Your task to perform on an android device: turn on translation in the chrome app Image 0: 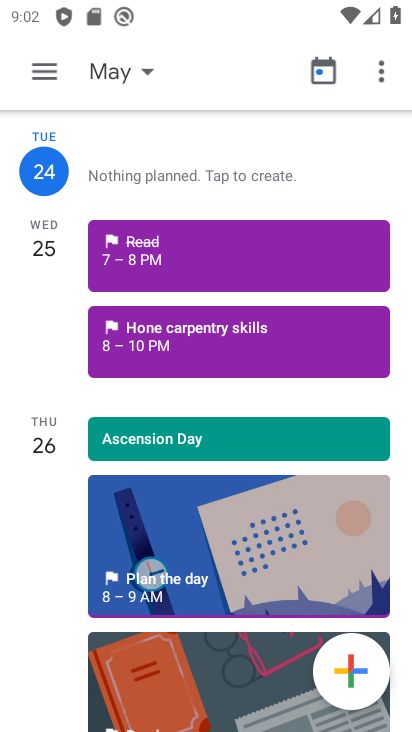
Step 0: press home button
Your task to perform on an android device: turn on translation in the chrome app Image 1: 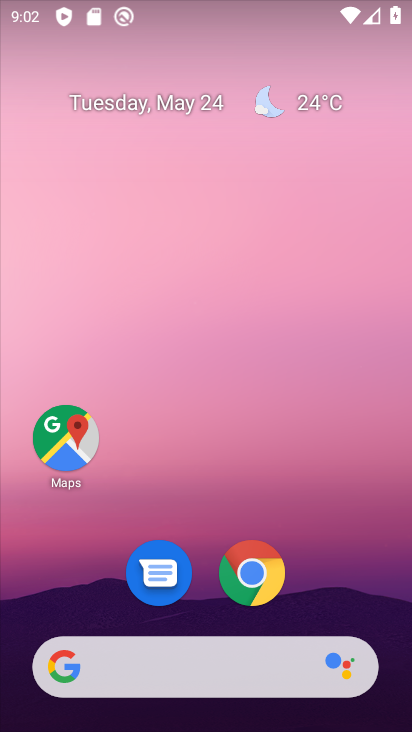
Step 1: click (247, 570)
Your task to perform on an android device: turn on translation in the chrome app Image 2: 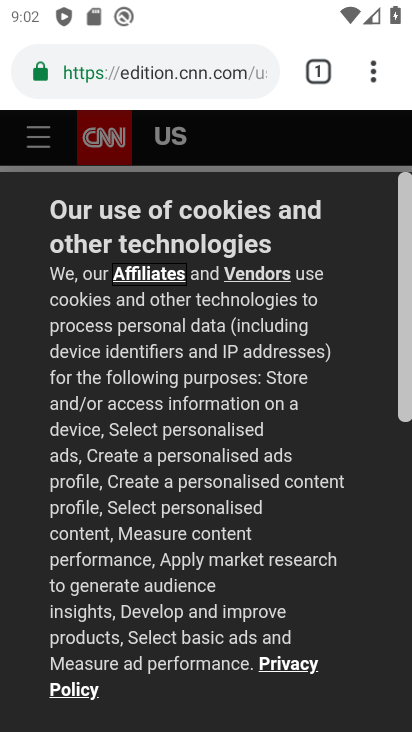
Step 2: click (372, 76)
Your task to perform on an android device: turn on translation in the chrome app Image 3: 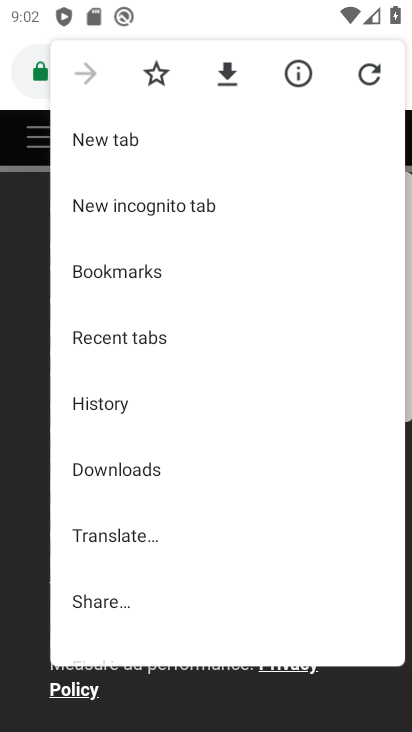
Step 3: drag from (223, 611) to (231, 195)
Your task to perform on an android device: turn on translation in the chrome app Image 4: 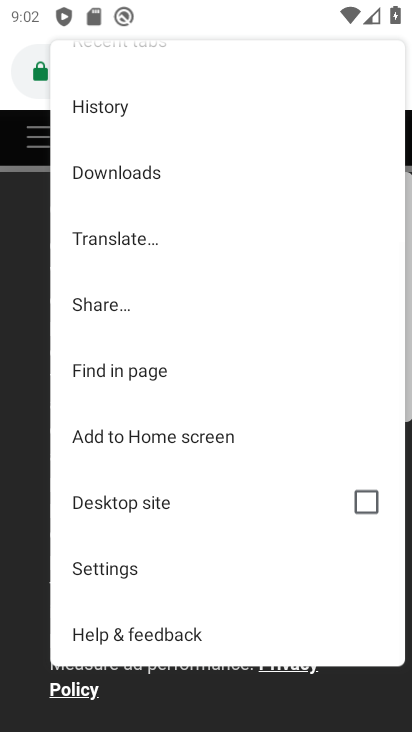
Step 4: click (122, 560)
Your task to perform on an android device: turn on translation in the chrome app Image 5: 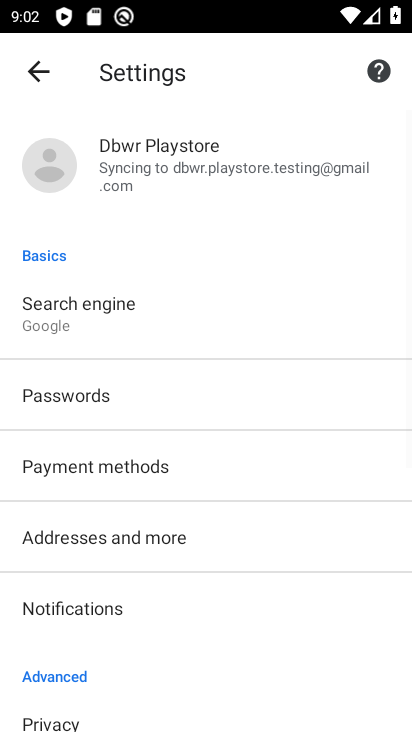
Step 5: drag from (215, 649) to (234, 129)
Your task to perform on an android device: turn on translation in the chrome app Image 6: 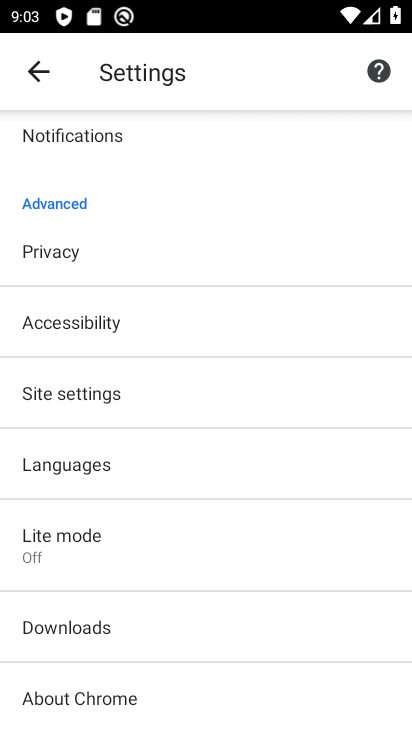
Step 6: click (70, 467)
Your task to perform on an android device: turn on translation in the chrome app Image 7: 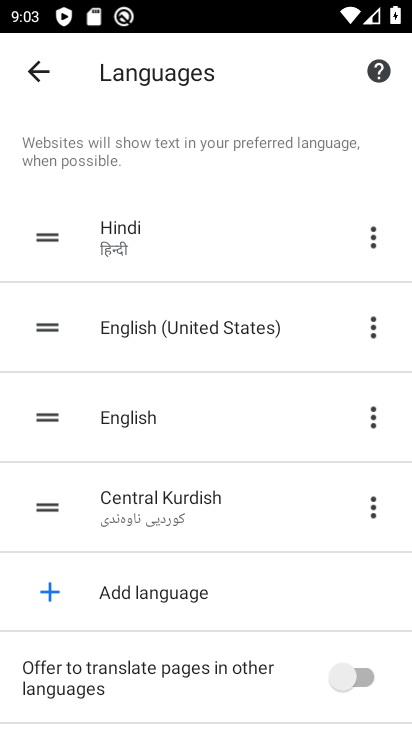
Step 7: click (352, 684)
Your task to perform on an android device: turn on translation in the chrome app Image 8: 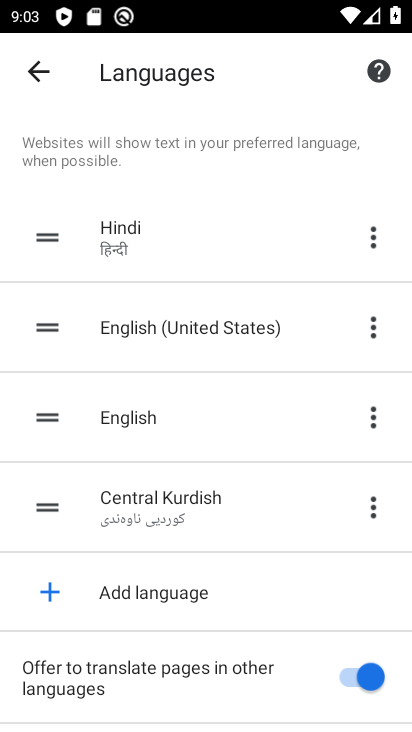
Step 8: task complete